Your task to perform on an android device: clear all cookies in the chrome app Image 0: 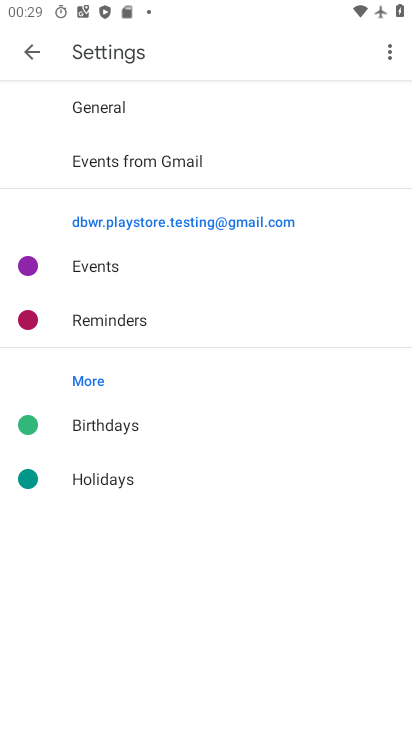
Step 0: press home button
Your task to perform on an android device: clear all cookies in the chrome app Image 1: 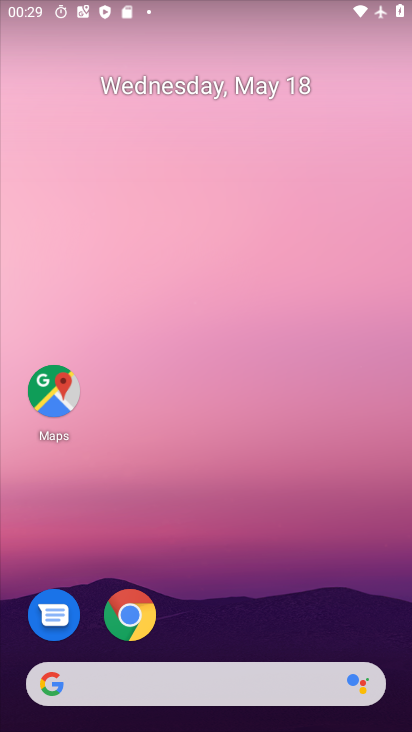
Step 1: click (148, 608)
Your task to perform on an android device: clear all cookies in the chrome app Image 2: 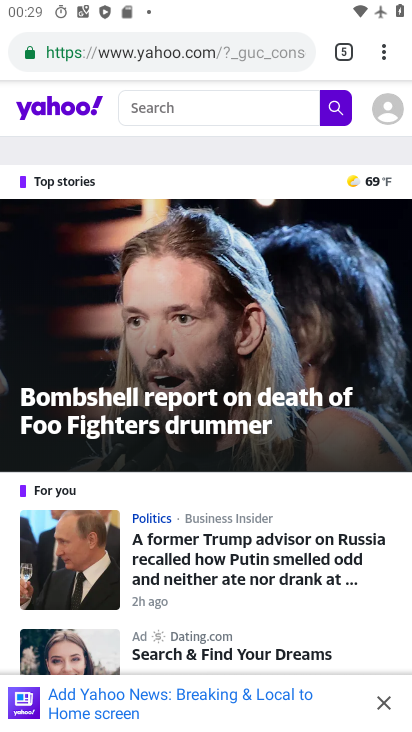
Step 2: drag from (378, 52) to (195, 281)
Your task to perform on an android device: clear all cookies in the chrome app Image 3: 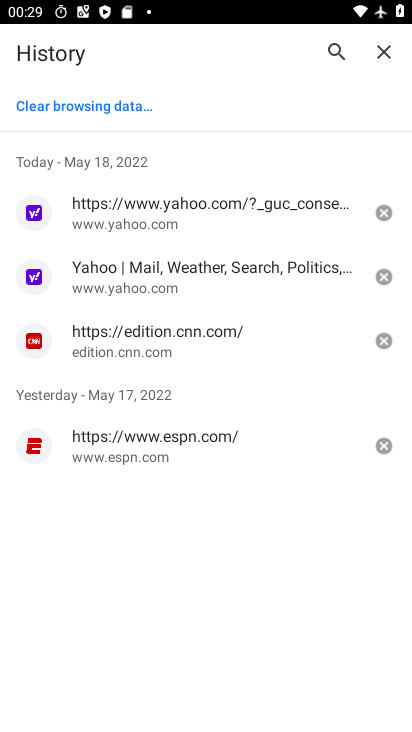
Step 3: click (93, 106)
Your task to perform on an android device: clear all cookies in the chrome app Image 4: 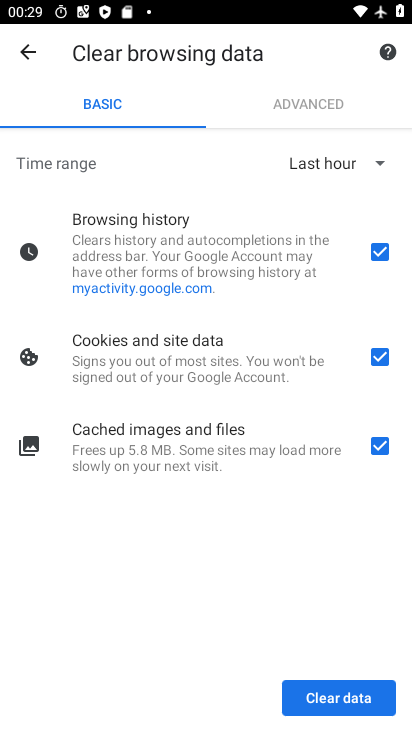
Step 4: click (309, 702)
Your task to perform on an android device: clear all cookies in the chrome app Image 5: 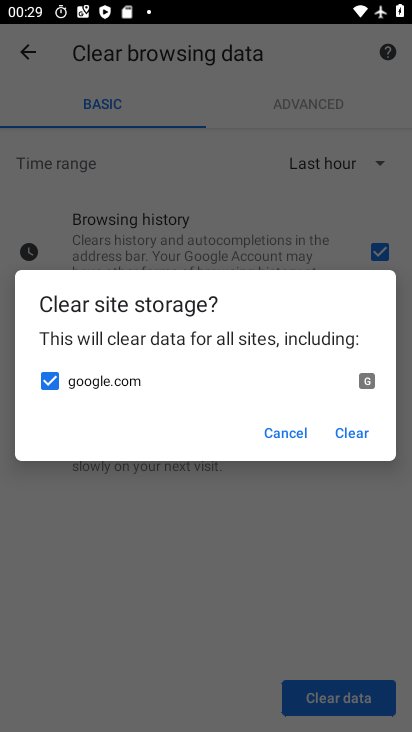
Step 5: click (340, 424)
Your task to perform on an android device: clear all cookies in the chrome app Image 6: 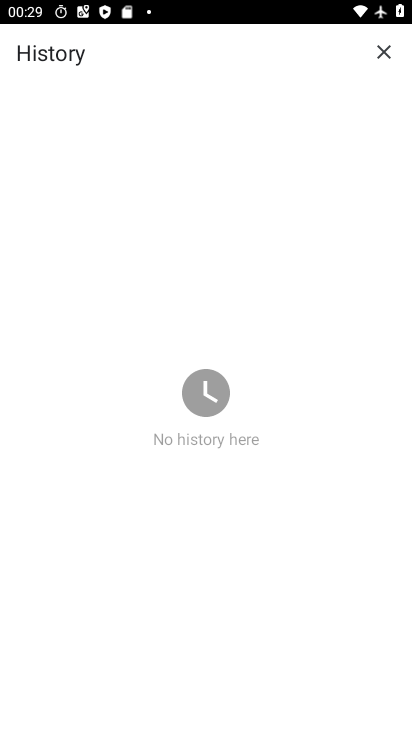
Step 6: task complete